Your task to perform on an android device: Open Wikipedia Image 0: 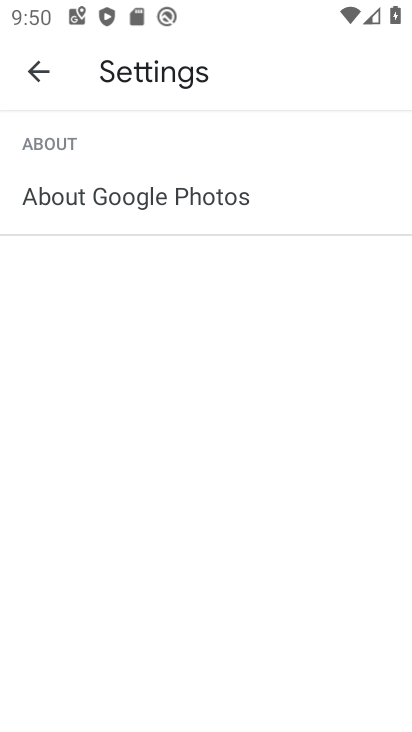
Step 0: press home button
Your task to perform on an android device: Open Wikipedia Image 1: 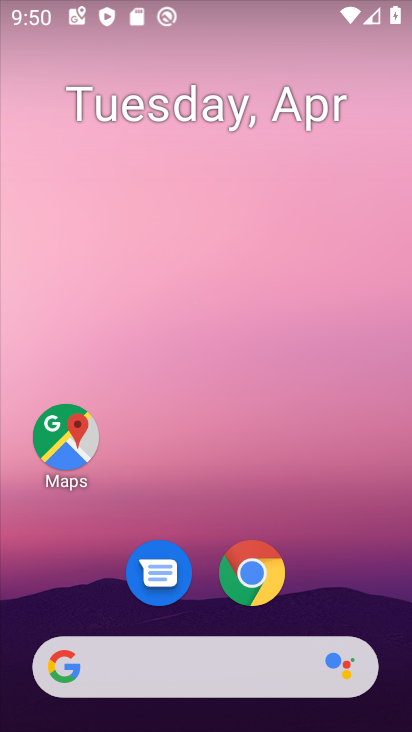
Step 1: drag from (203, 396) to (203, 104)
Your task to perform on an android device: Open Wikipedia Image 2: 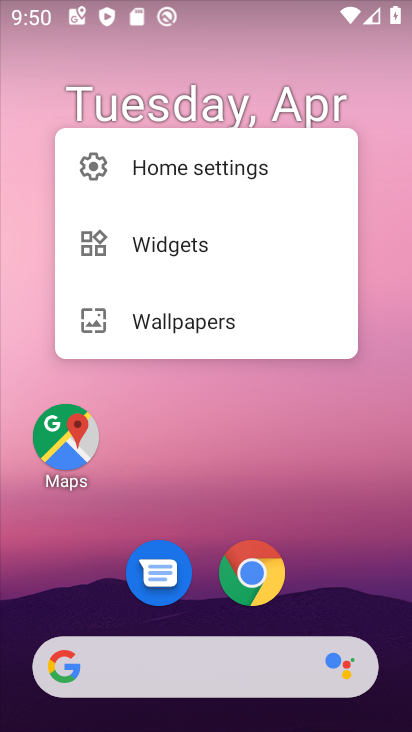
Step 2: click (209, 507)
Your task to perform on an android device: Open Wikipedia Image 3: 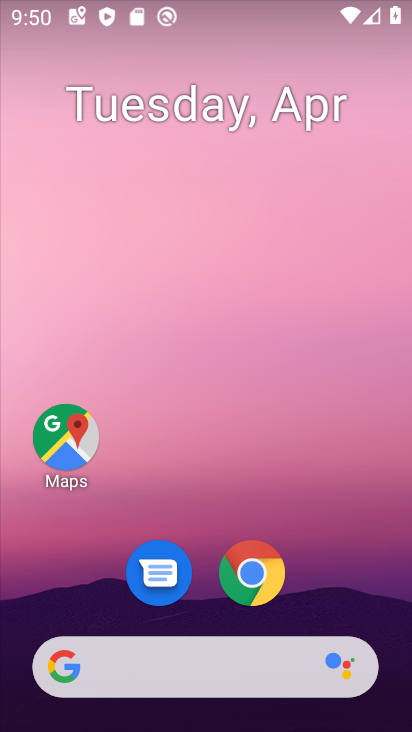
Step 3: click (198, 114)
Your task to perform on an android device: Open Wikipedia Image 4: 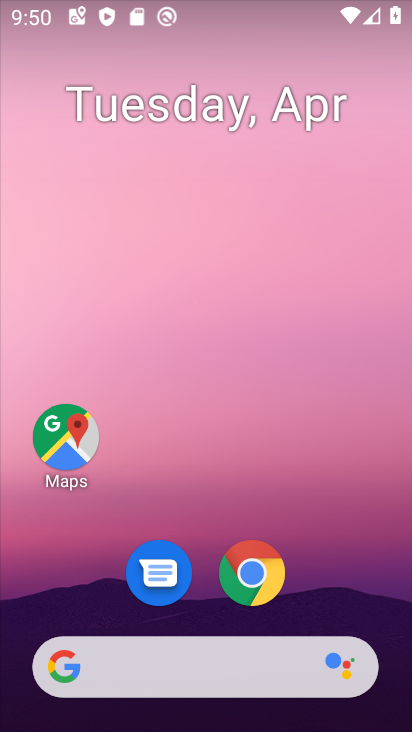
Step 4: drag from (215, 325) to (249, 43)
Your task to perform on an android device: Open Wikipedia Image 5: 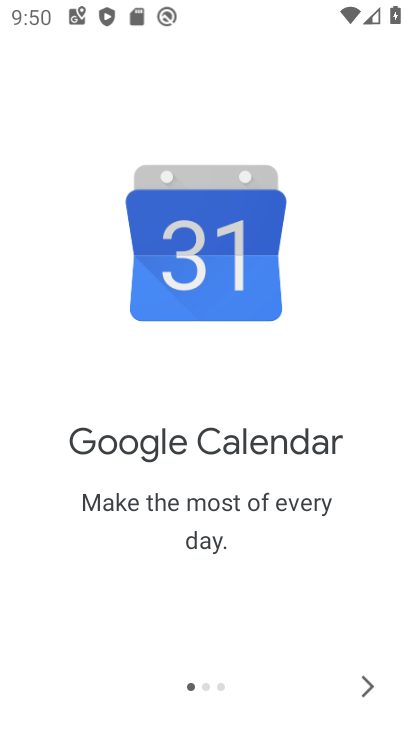
Step 5: press home button
Your task to perform on an android device: Open Wikipedia Image 6: 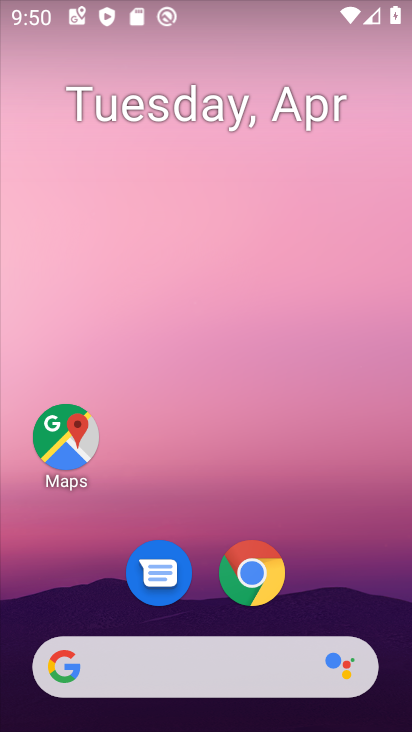
Step 6: click (205, 663)
Your task to perform on an android device: Open Wikipedia Image 7: 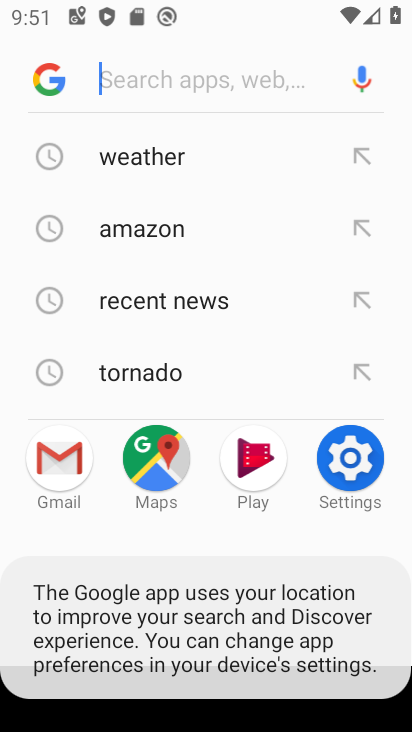
Step 7: click (171, 82)
Your task to perform on an android device: Open Wikipedia Image 8: 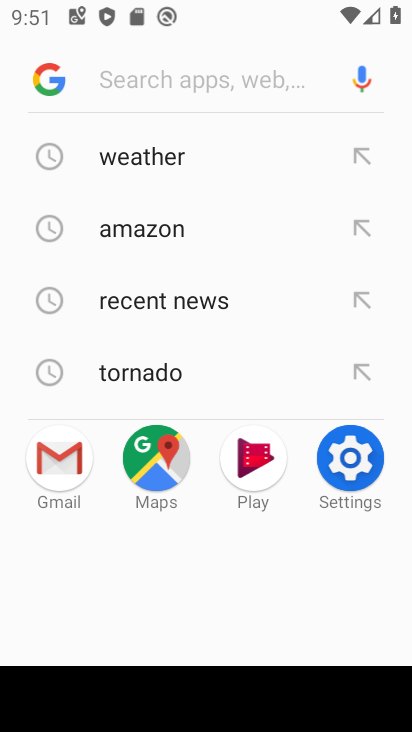
Step 8: type "Wikipedia"
Your task to perform on an android device: Open Wikipedia Image 9: 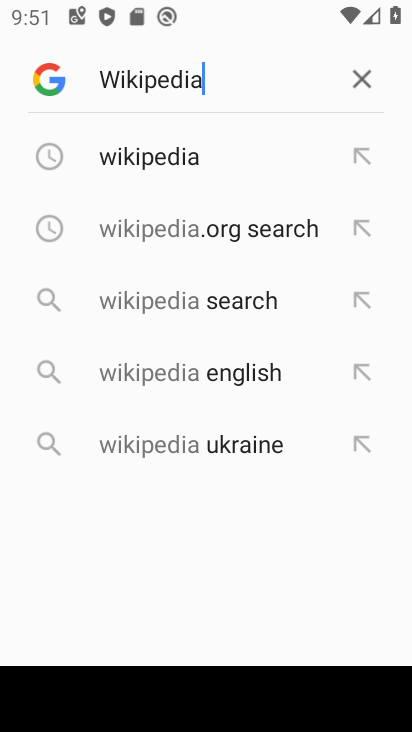
Step 9: click (137, 150)
Your task to perform on an android device: Open Wikipedia Image 10: 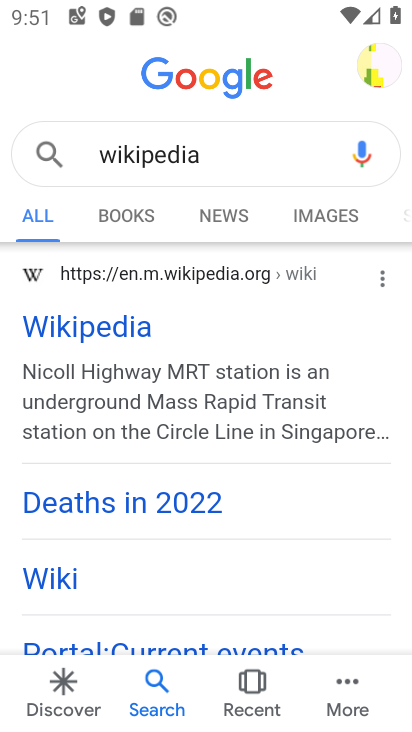
Step 10: click (133, 314)
Your task to perform on an android device: Open Wikipedia Image 11: 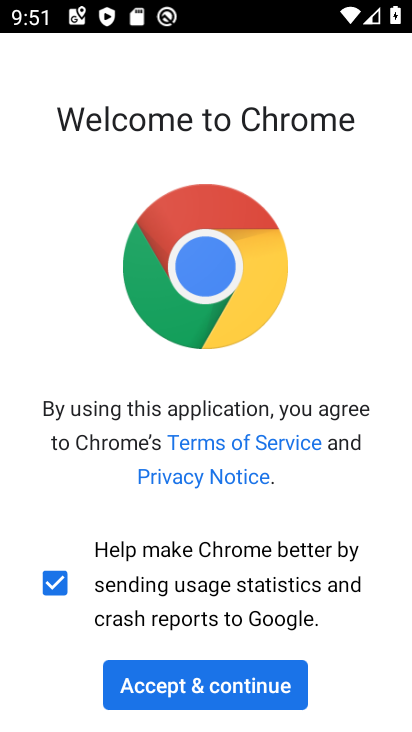
Step 11: click (191, 684)
Your task to perform on an android device: Open Wikipedia Image 12: 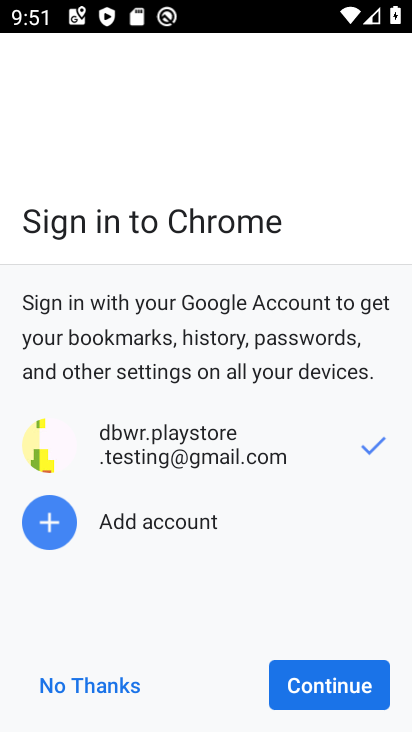
Step 12: click (347, 683)
Your task to perform on an android device: Open Wikipedia Image 13: 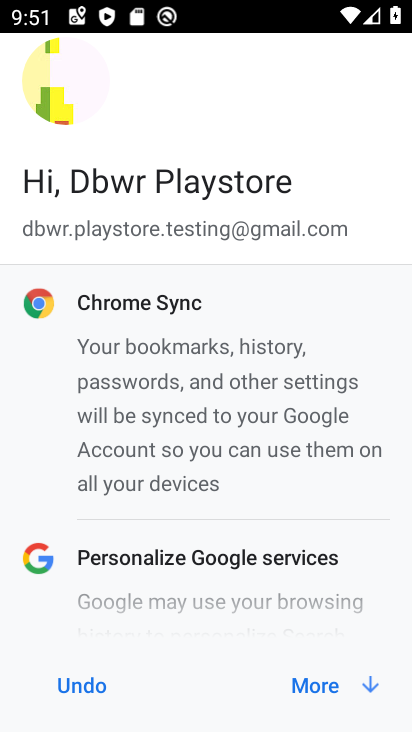
Step 13: click (348, 678)
Your task to perform on an android device: Open Wikipedia Image 14: 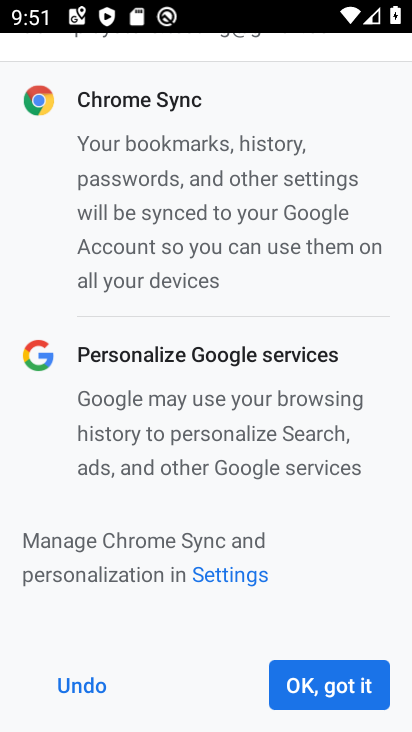
Step 14: click (348, 678)
Your task to perform on an android device: Open Wikipedia Image 15: 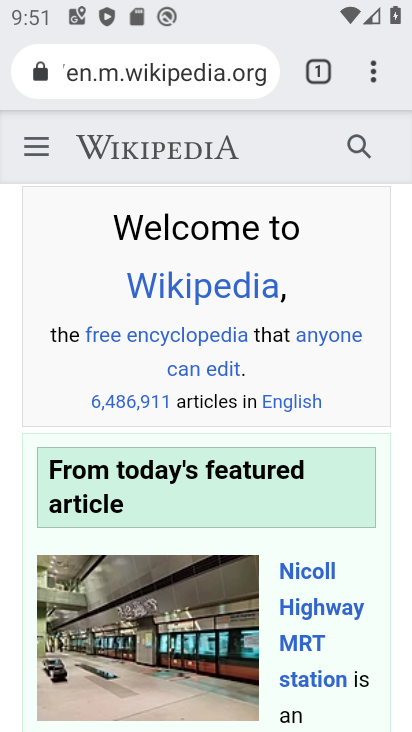
Step 15: task complete